Your task to perform on an android device: Open Android settings Image 0: 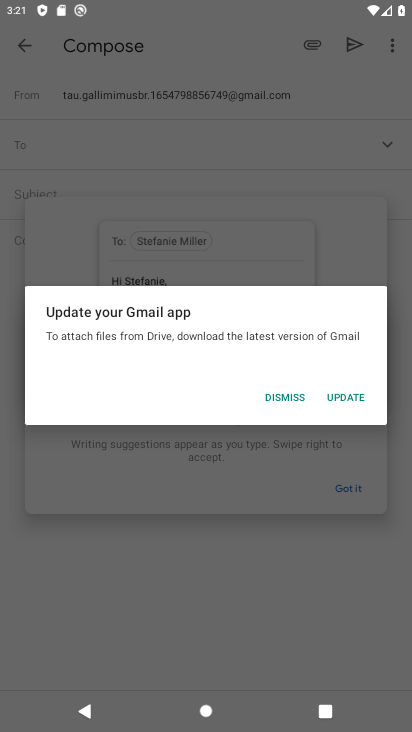
Step 0: press home button
Your task to perform on an android device: Open Android settings Image 1: 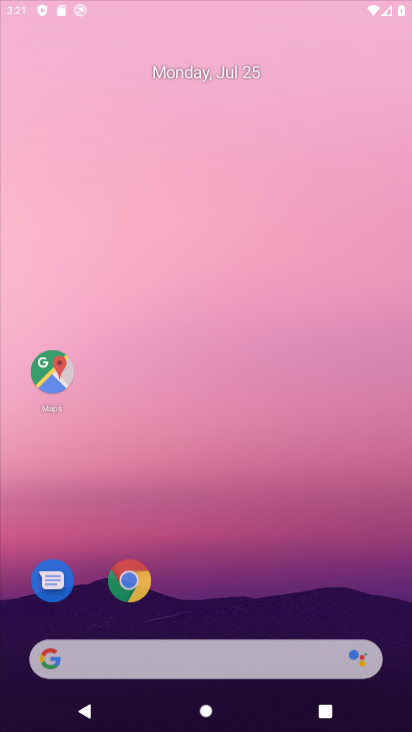
Step 1: press home button
Your task to perform on an android device: Open Android settings Image 2: 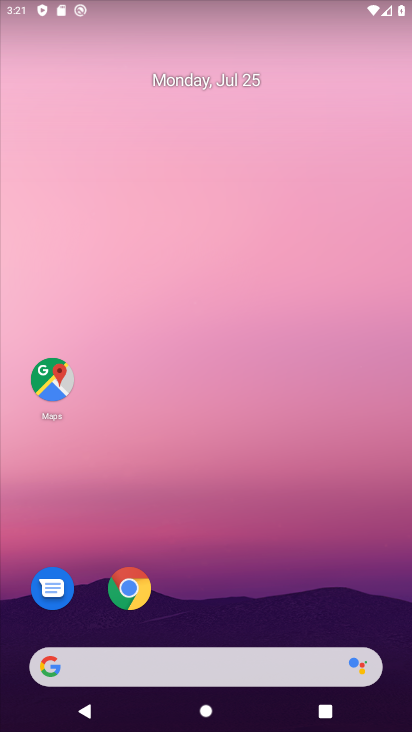
Step 2: drag from (288, 539) to (171, 3)
Your task to perform on an android device: Open Android settings Image 3: 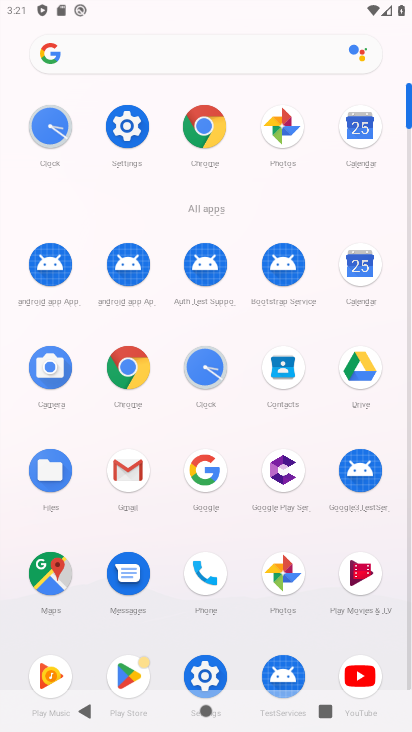
Step 3: click (126, 122)
Your task to perform on an android device: Open Android settings Image 4: 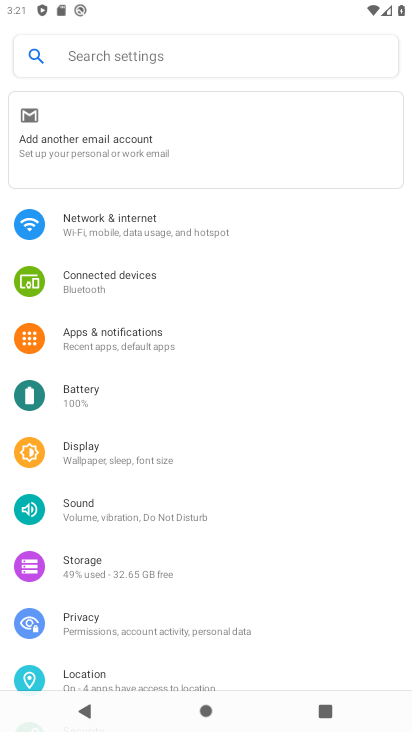
Step 4: task complete